Your task to perform on an android device: Search for seafood restaurants on Google Maps Image 0: 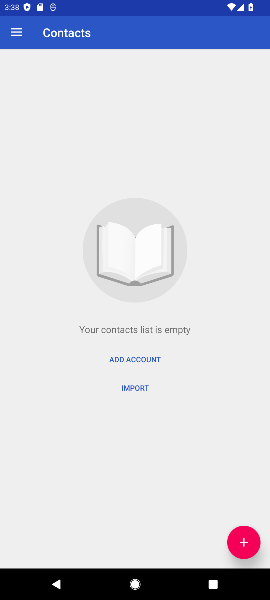
Step 0: press home button
Your task to perform on an android device: Search for seafood restaurants on Google Maps Image 1: 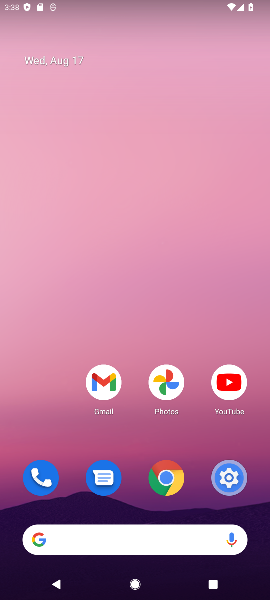
Step 1: drag from (199, 433) to (206, 81)
Your task to perform on an android device: Search for seafood restaurants on Google Maps Image 2: 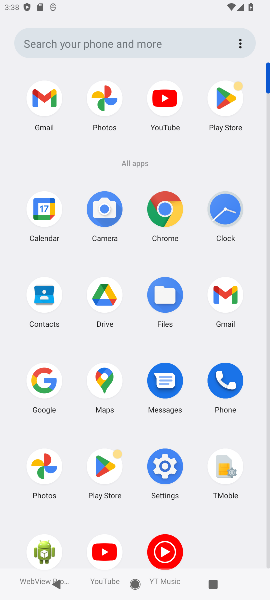
Step 2: click (106, 380)
Your task to perform on an android device: Search for seafood restaurants on Google Maps Image 3: 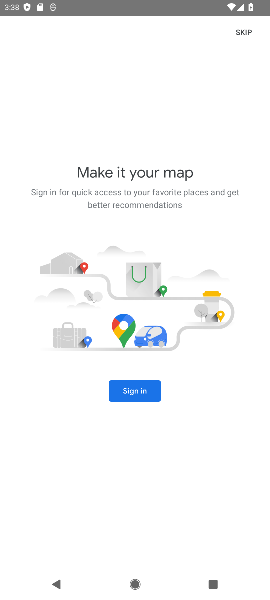
Step 3: click (242, 35)
Your task to perform on an android device: Search for seafood restaurants on Google Maps Image 4: 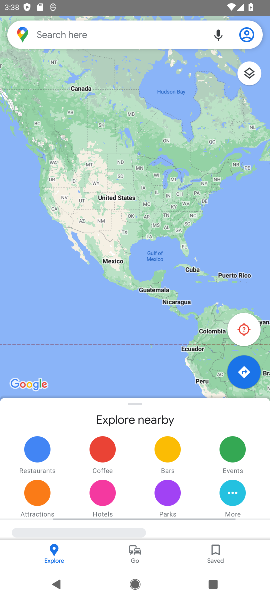
Step 4: click (154, 42)
Your task to perform on an android device: Search for seafood restaurants on Google Maps Image 5: 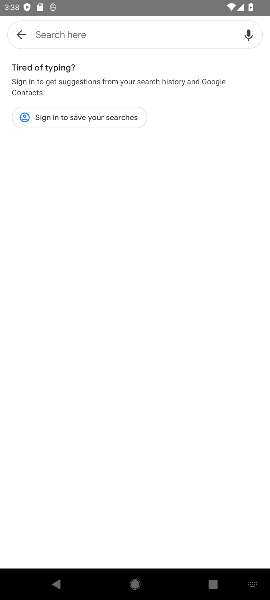
Step 5: type "seafood restaurants"
Your task to perform on an android device: Search for seafood restaurants on Google Maps Image 6: 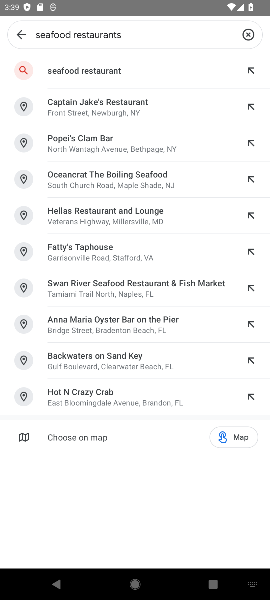
Step 6: press enter
Your task to perform on an android device: Search for seafood restaurants on Google Maps Image 7: 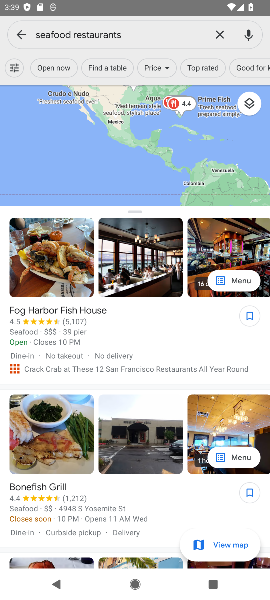
Step 7: task complete